Your task to perform on an android device: change keyboard looks Image 0: 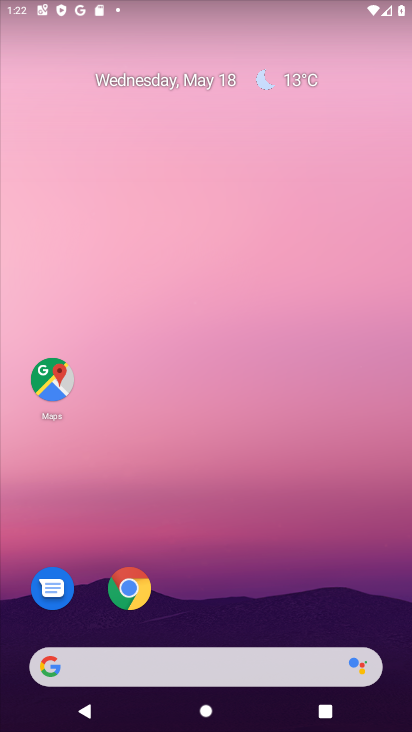
Step 0: drag from (188, 626) to (263, 101)
Your task to perform on an android device: change keyboard looks Image 1: 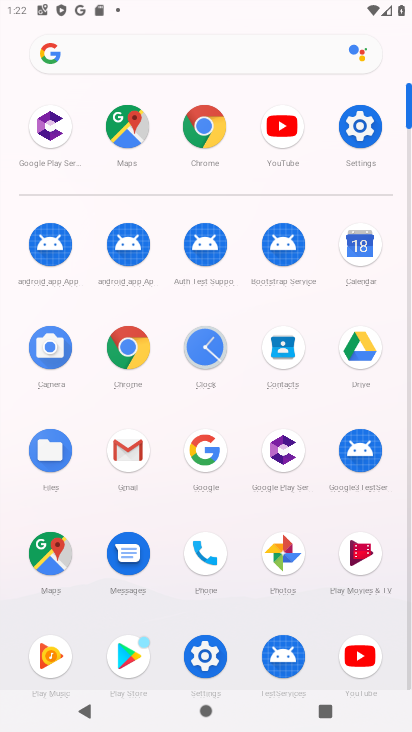
Step 1: click (346, 131)
Your task to perform on an android device: change keyboard looks Image 2: 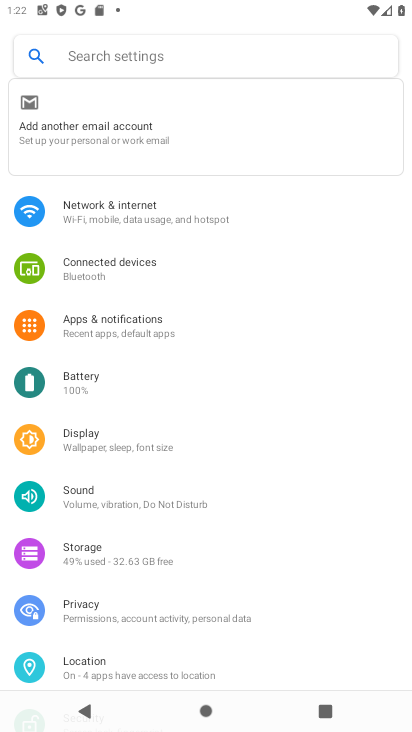
Step 2: drag from (195, 606) to (278, 42)
Your task to perform on an android device: change keyboard looks Image 3: 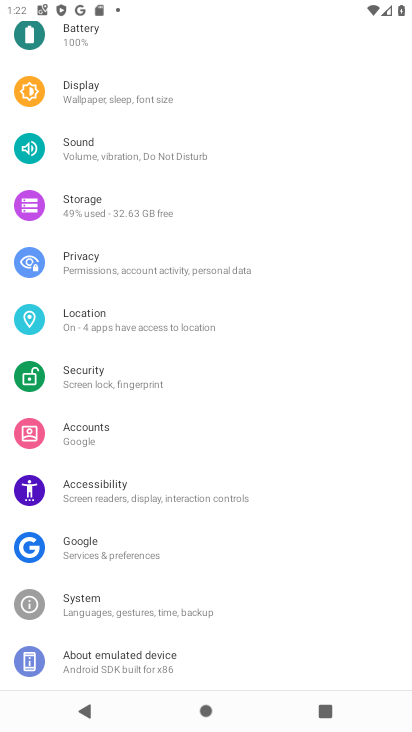
Step 3: click (130, 611)
Your task to perform on an android device: change keyboard looks Image 4: 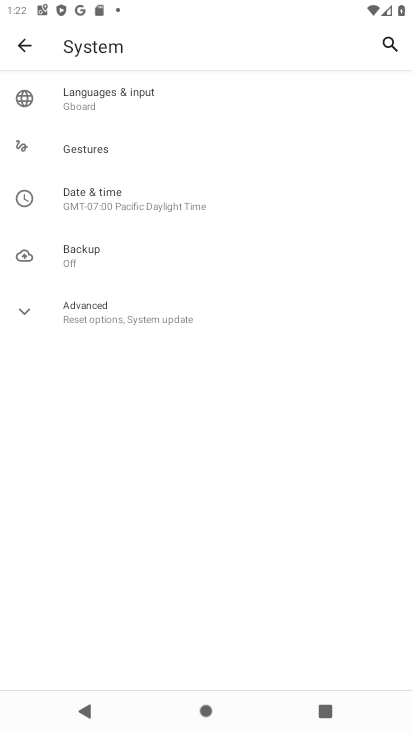
Step 4: click (116, 106)
Your task to perform on an android device: change keyboard looks Image 5: 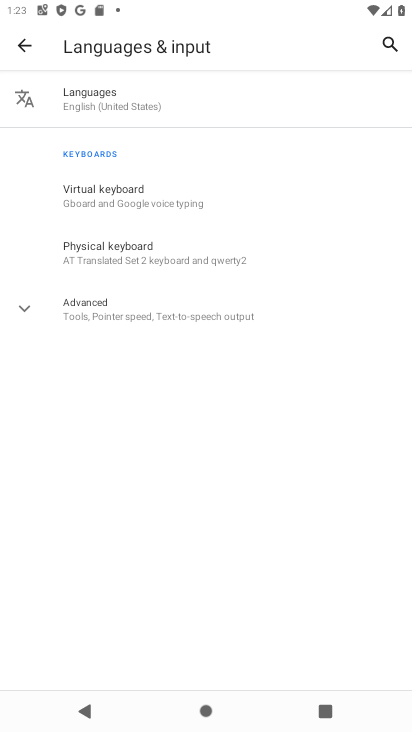
Step 5: click (148, 196)
Your task to perform on an android device: change keyboard looks Image 6: 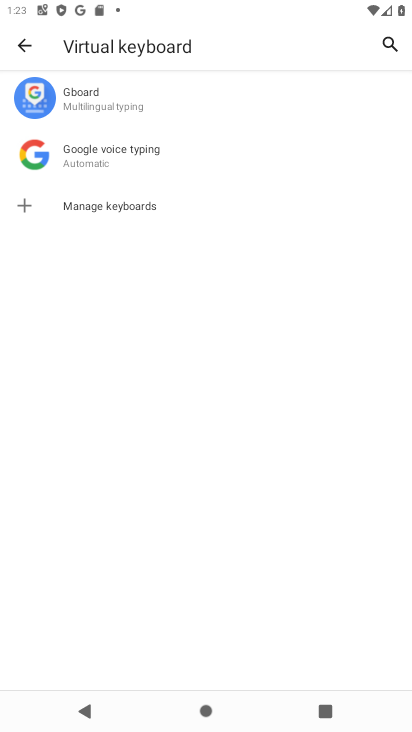
Step 6: click (123, 114)
Your task to perform on an android device: change keyboard looks Image 7: 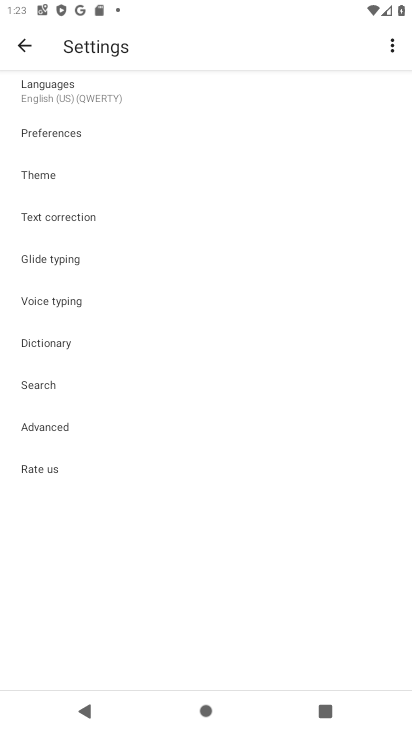
Step 7: click (64, 172)
Your task to perform on an android device: change keyboard looks Image 8: 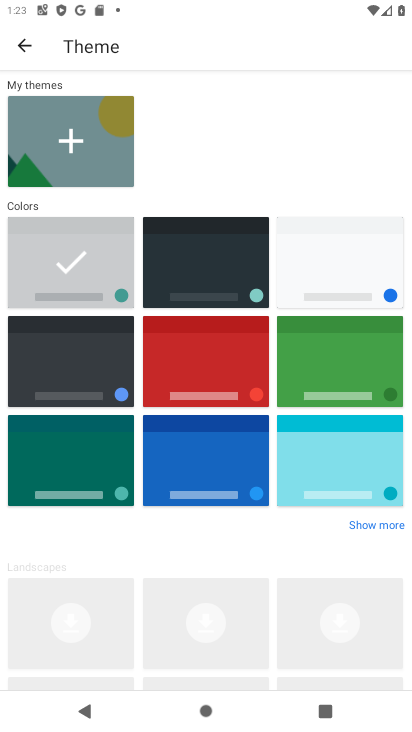
Step 8: drag from (254, 484) to (299, 127)
Your task to perform on an android device: change keyboard looks Image 9: 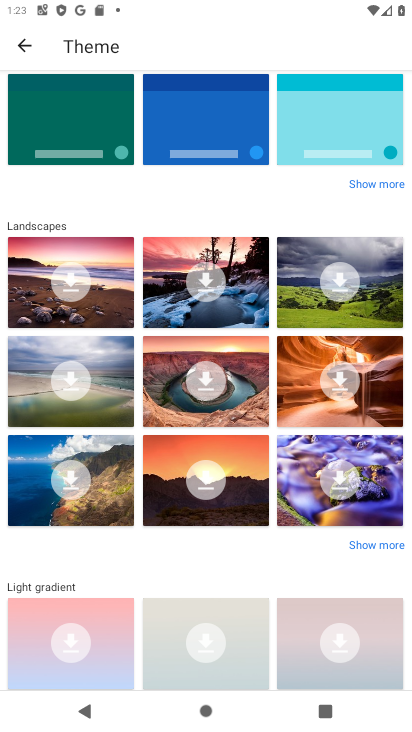
Step 9: drag from (332, 104) to (350, 496)
Your task to perform on an android device: change keyboard looks Image 10: 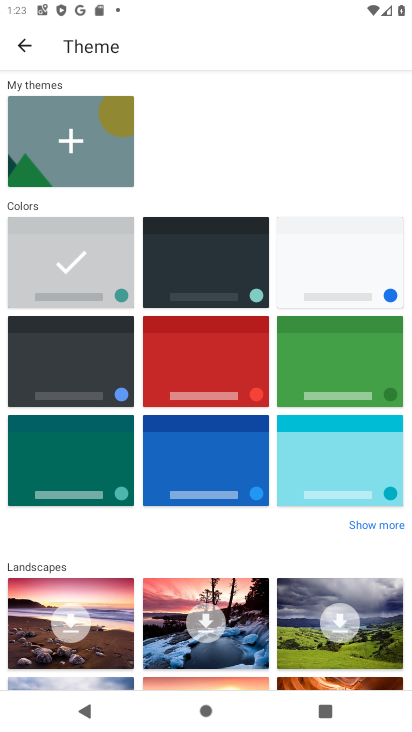
Step 10: click (342, 342)
Your task to perform on an android device: change keyboard looks Image 11: 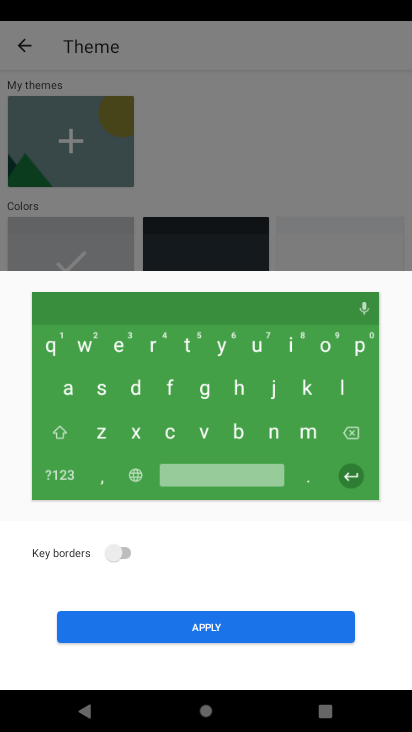
Step 11: click (269, 633)
Your task to perform on an android device: change keyboard looks Image 12: 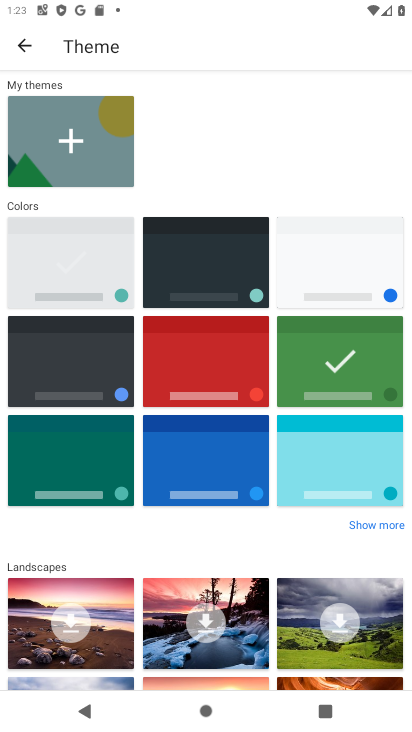
Step 12: task complete